Your task to perform on an android device: Check the weather Image 0: 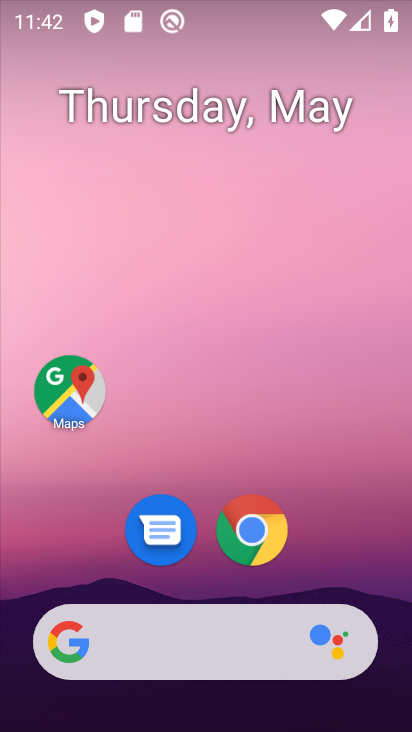
Step 0: drag from (178, 586) to (219, 356)
Your task to perform on an android device: Check the weather Image 1: 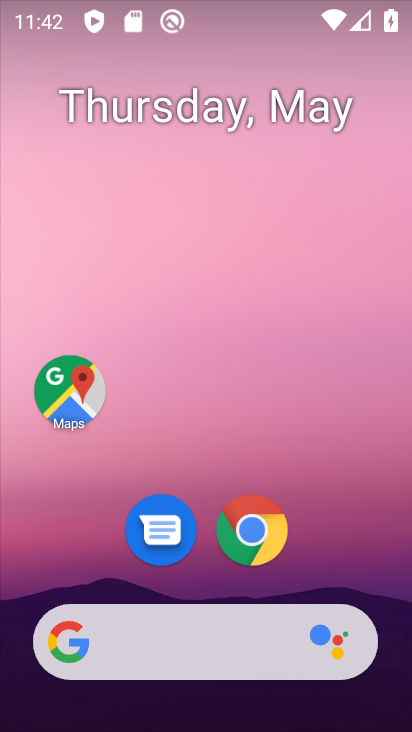
Step 1: drag from (202, 587) to (211, 255)
Your task to perform on an android device: Check the weather Image 2: 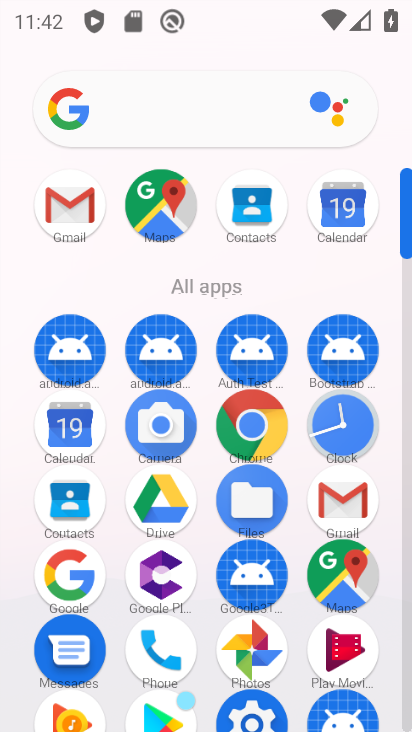
Step 2: click (72, 584)
Your task to perform on an android device: Check the weather Image 3: 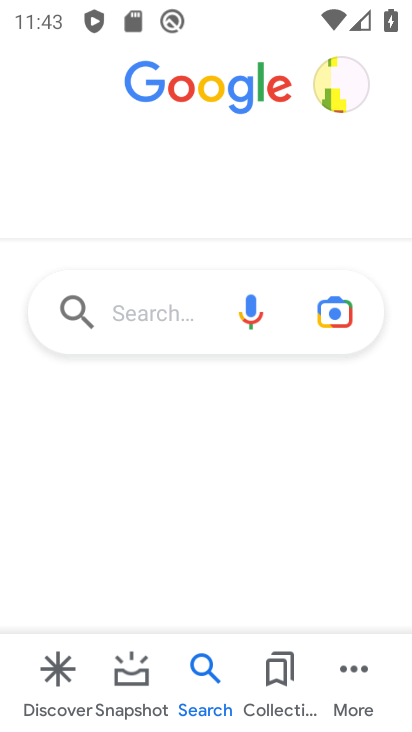
Step 3: click (125, 323)
Your task to perform on an android device: Check the weather Image 4: 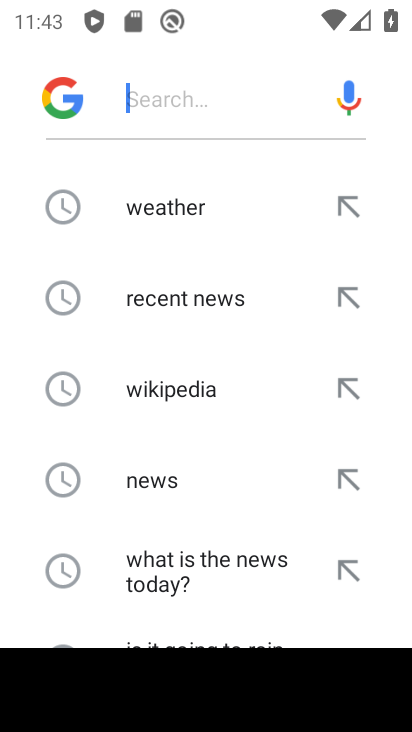
Step 4: click (137, 204)
Your task to perform on an android device: Check the weather Image 5: 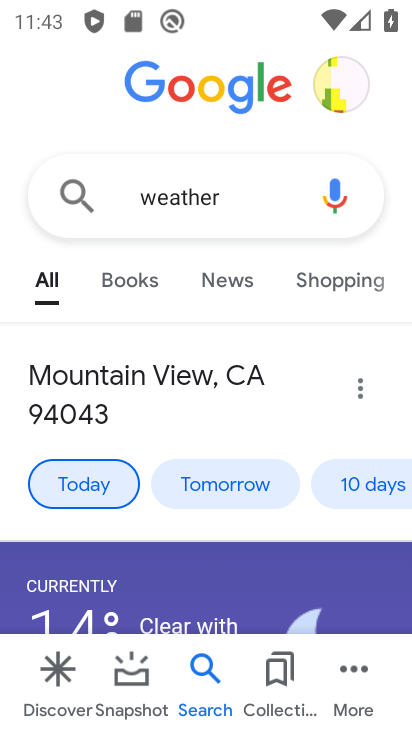
Step 5: task complete